Your task to perform on an android device: allow notifications from all sites in the chrome app Image 0: 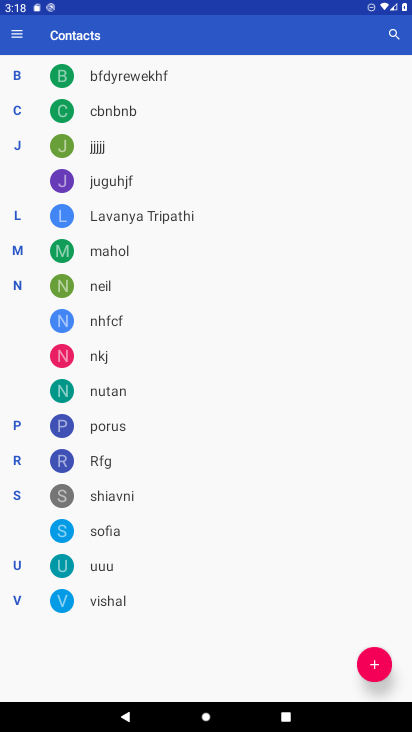
Step 0: press home button
Your task to perform on an android device: allow notifications from all sites in the chrome app Image 1: 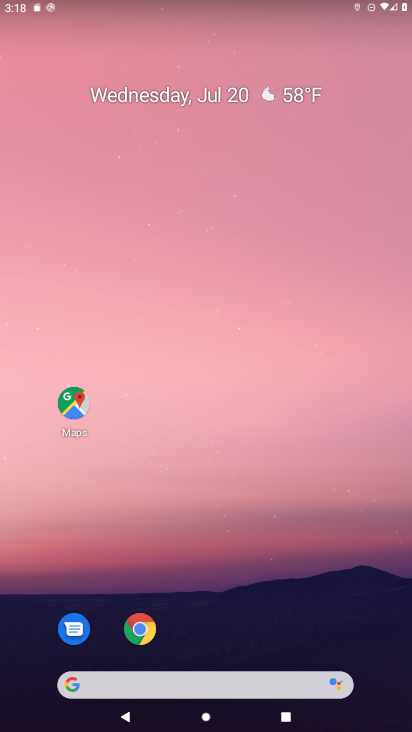
Step 1: drag from (309, 619) to (259, 5)
Your task to perform on an android device: allow notifications from all sites in the chrome app Image 2: 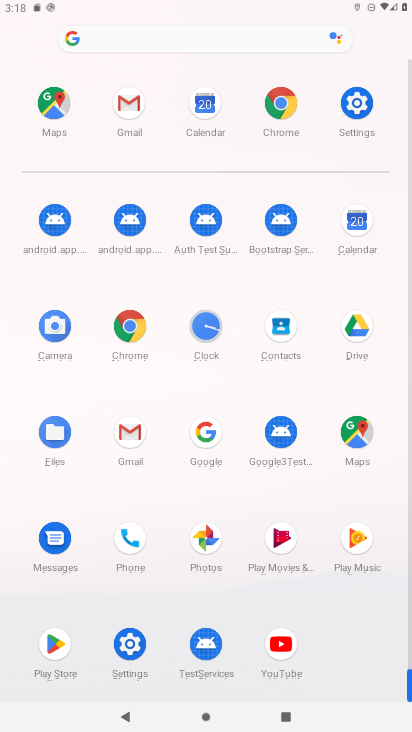
Step 2: click (123, 339)
Your task to perform on an android device: allow notifications from all sites in the chrome app Image 3: 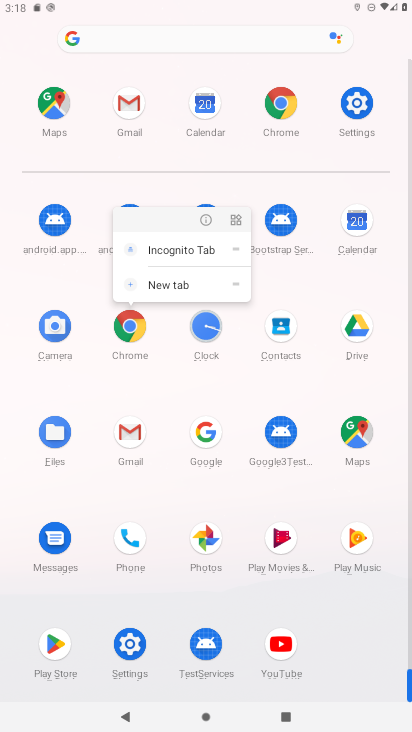
Step 3: click (206, 222)
Your task to perform on an android device: allow notifications from all sites in the chrome app Image 4: 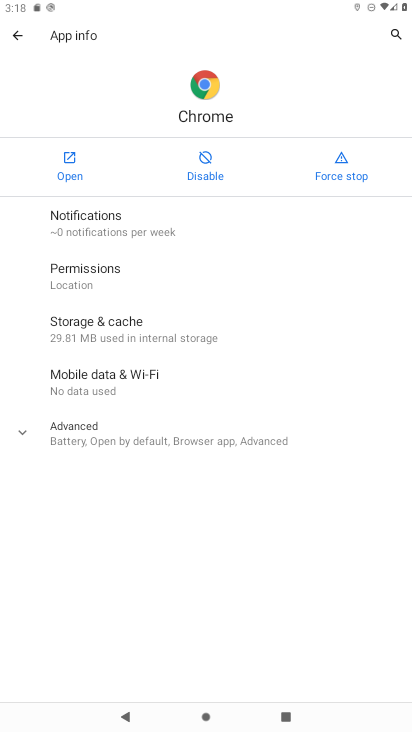
Step 4: click (86, 214)
Your task to perform on an android device: allow notifications from all sites in the chrome app Image 5: 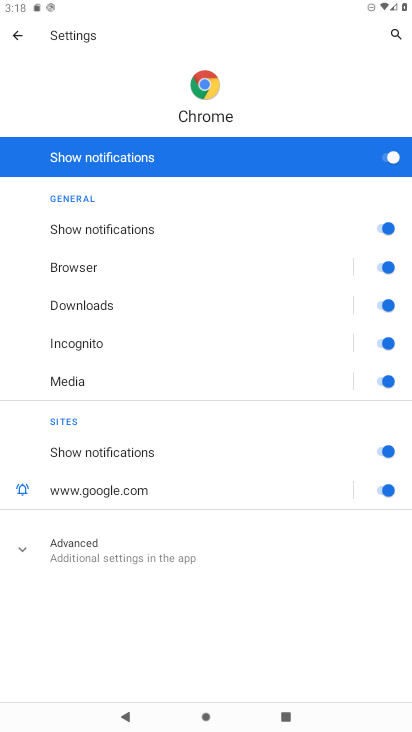
Step 5: click (94, 548)
Your task to perform on an android device: allow notifications from all sites in the chrome app Image 6: 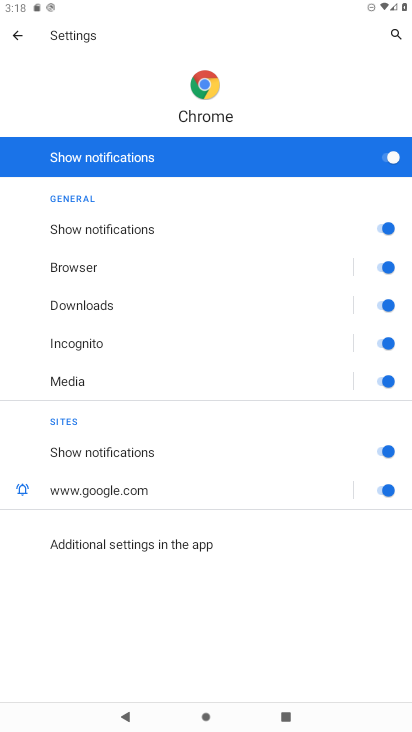
Step 6: task complete